Your task to perform on an android device: Go to accessibility settings Image 0: 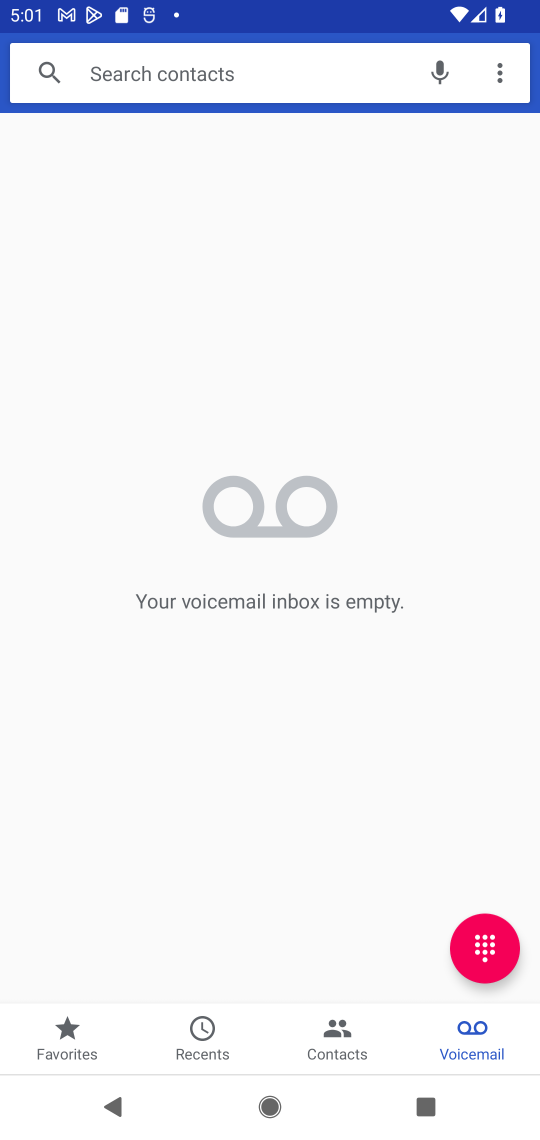
Step 0: press home button
Your task to perform on an android device: Go to accessibility settings Image 1: 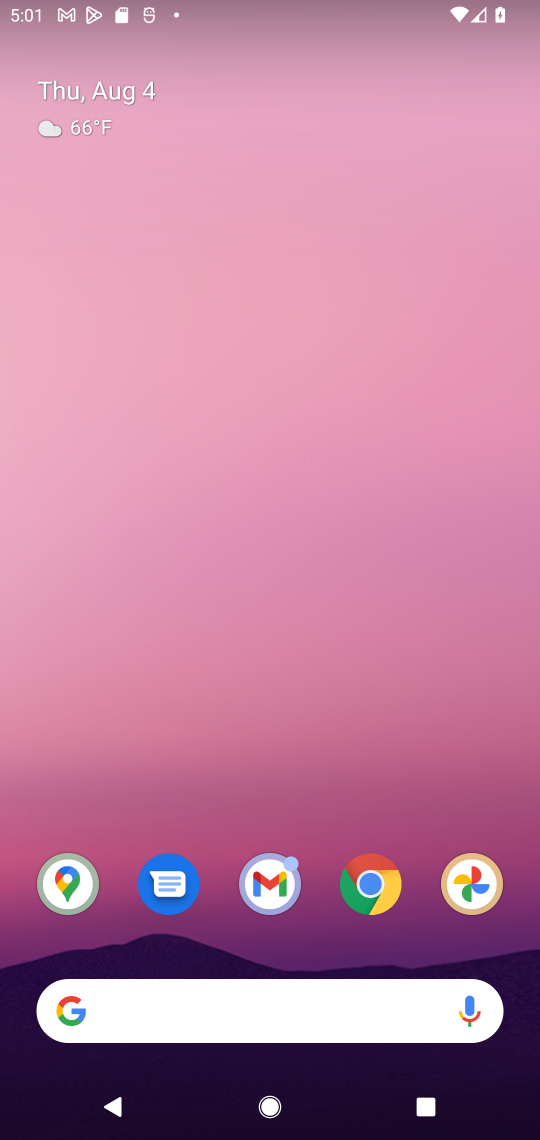
Step 1: drag from (303, 948) to (250, 200)
Your task to perform on an android device: Go to accessibility settings Image 2: 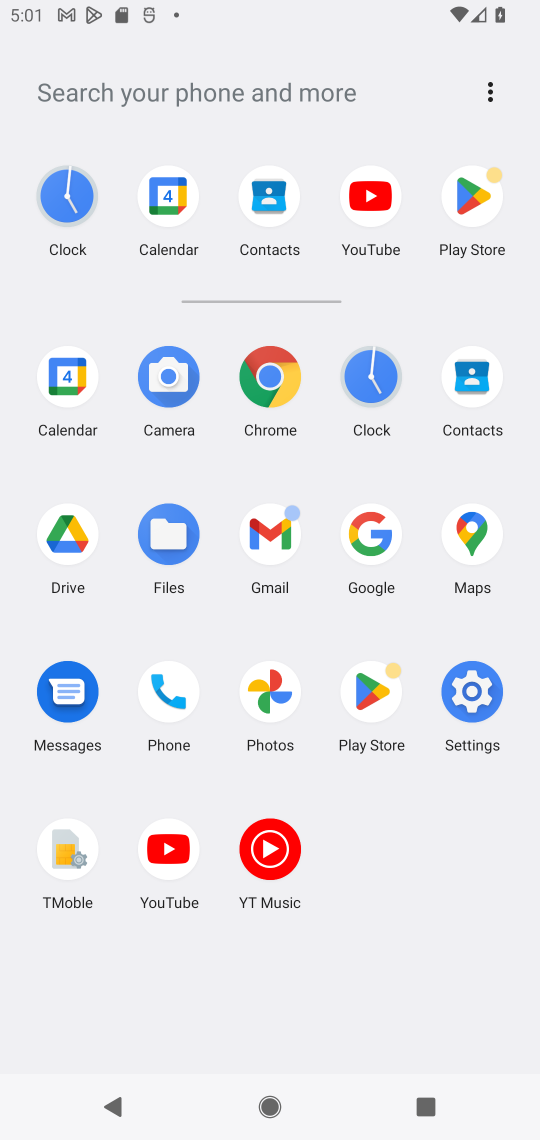
Step 2: click (483, 726)
Your task to perform on an android device: Go to accessibility settings Image 3: 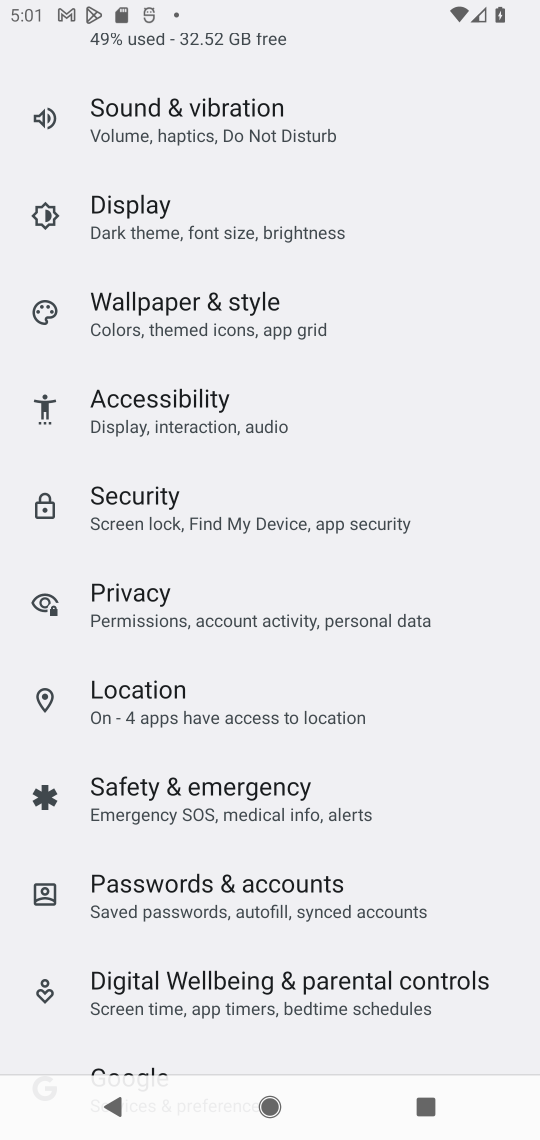
Step 3: click (243, 442)
Your task to perform on an android device: Go to accessibility settings Image 4: 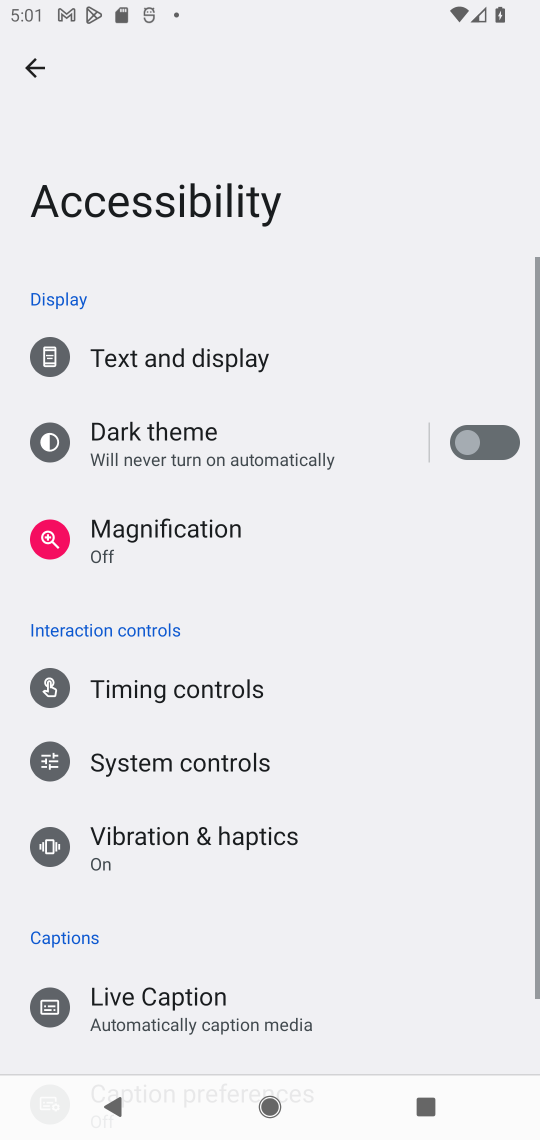
Step 4: task complete